Your task to perform on an android device: Open settings Image 0: 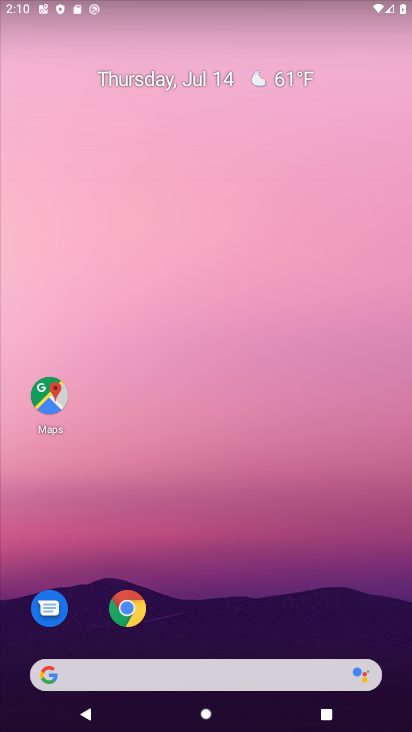
Step 0: drag from (199, 639) to (206, 261)
Your task to perform on an android device: Open settings Image 1: 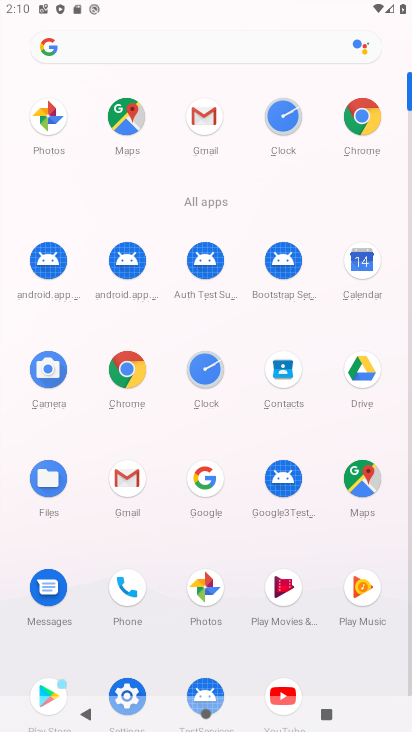
Step 1: click (125, 690)
Your task to perform on an android device: Open settings Image 2: 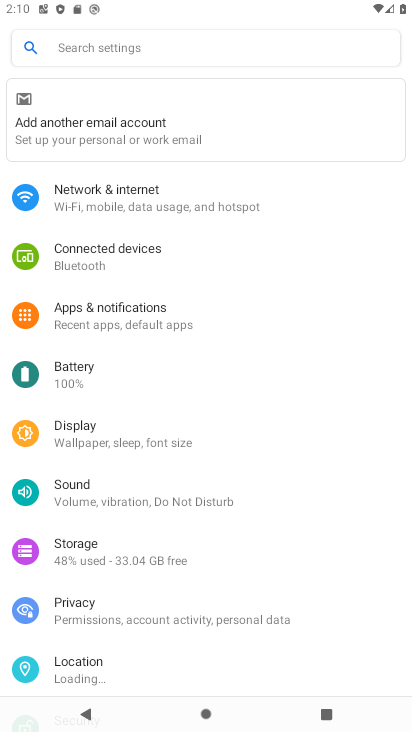
Step 2: task complete